Your task to perform on an android device: open device folders in google photos Image 0: 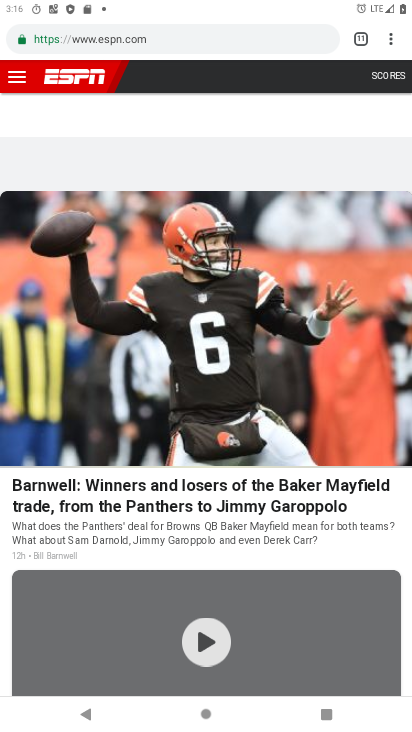
Step 0: press home button
Your task to perform on an android device: open device folders in google photos Image 1: 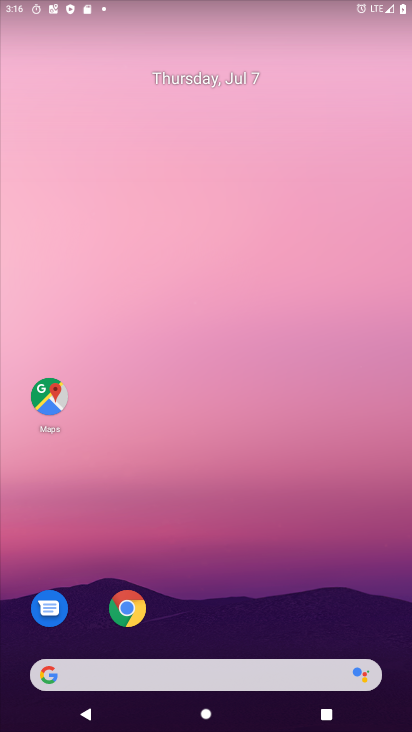
Step 1: drag from (240, 719) to (233, 160)
Your task to perform on an android device: open device folders in google photos Image 2: 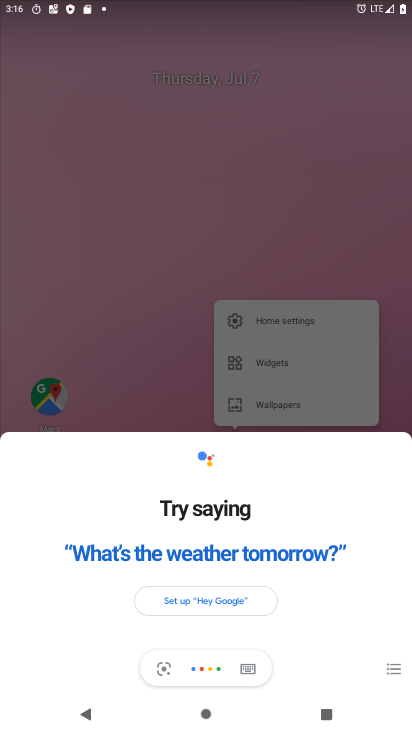
Step 2: click (164, 247)
Your task to perform on an android device: open device folders in google photos Image 3: 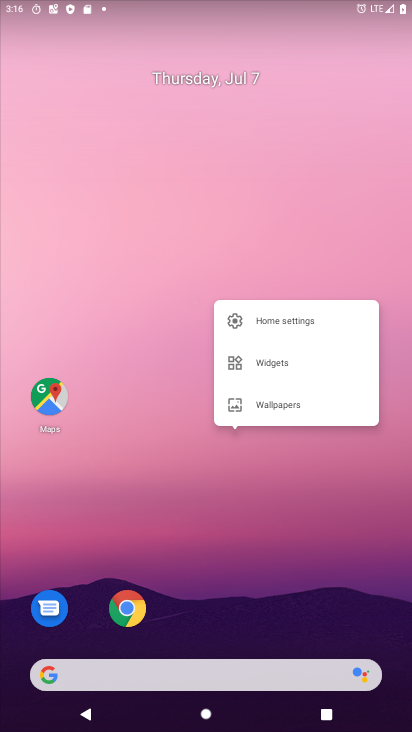
Step 3: press home button
Your task to perform on an android device: open device folders in google photos Image 4: 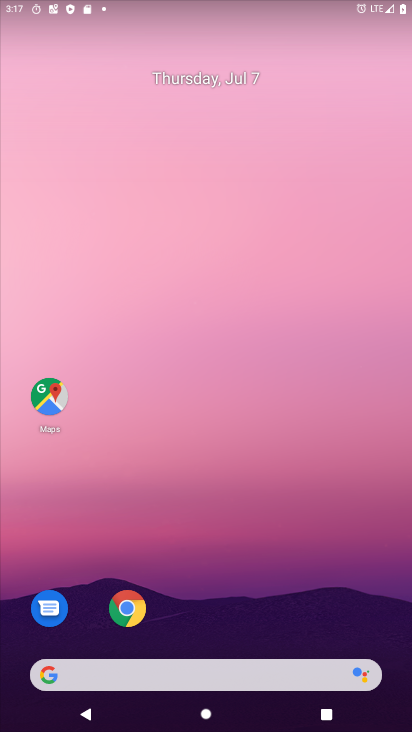
Step 4: click (259, 722)
Your task to perform on an android device: open device folders in google photos Image 5: 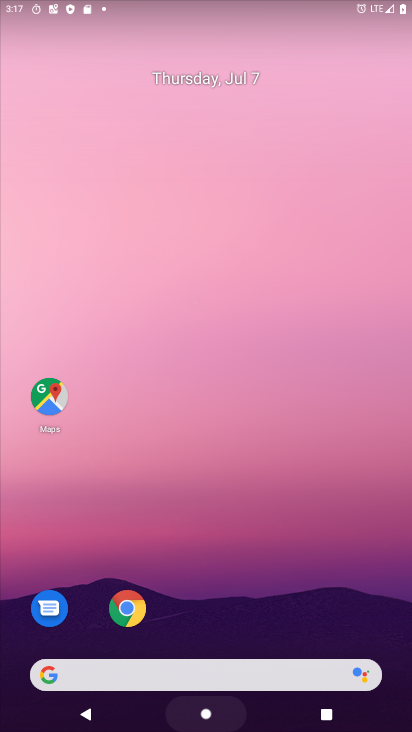
Step 5: click (235, 49)
Your task to perform on an android device: open device folders in google photos Image 6: 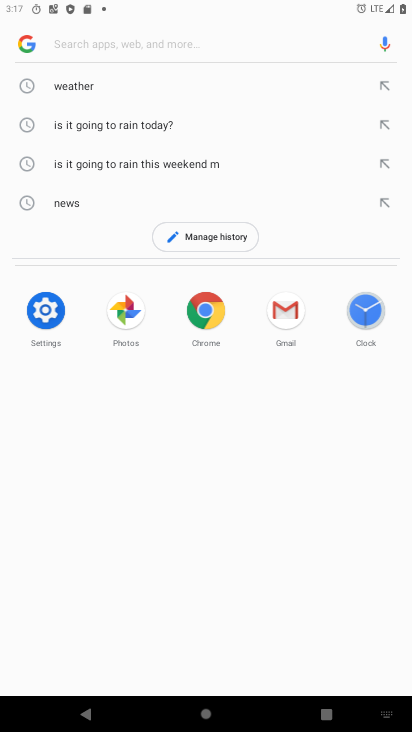
Step 6: press home button
Your task to perform on an android device: open device folders in google photos Image 7: 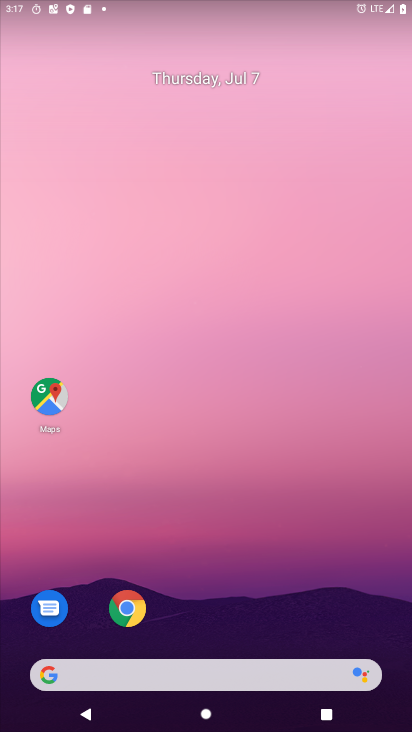
Step 7: drag from (253, 725) to (234, 51)
Your task to perform on an android device: open device folders in google photos Image 8: 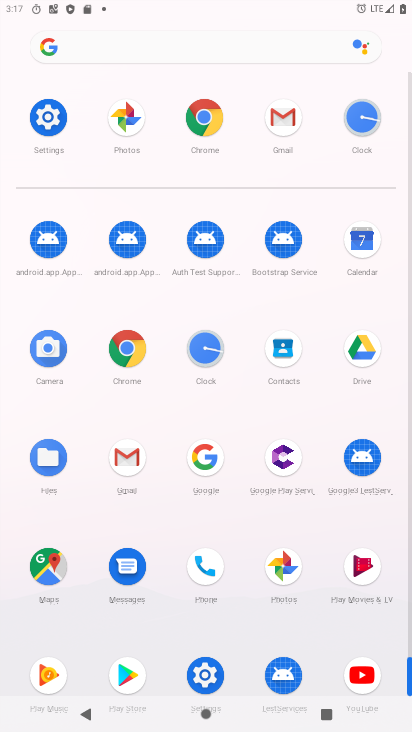
Step 8: click (282, 566)
Your task to perform on an android device: open device folders in google photos Image 9: 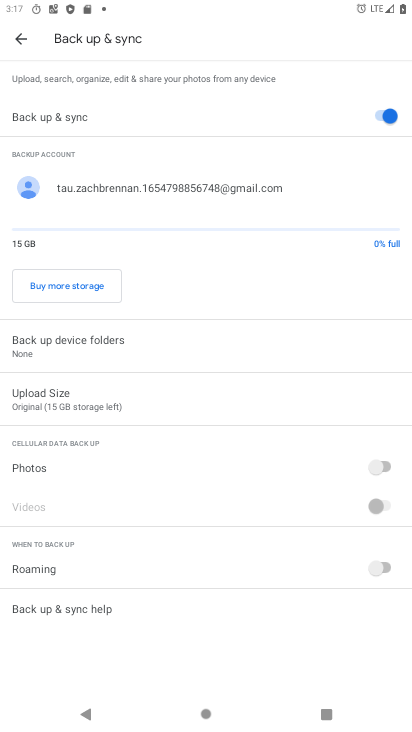
Step 9: click (16, 34)
Your task to perform on an android device: open device folders in google photos Image 10: 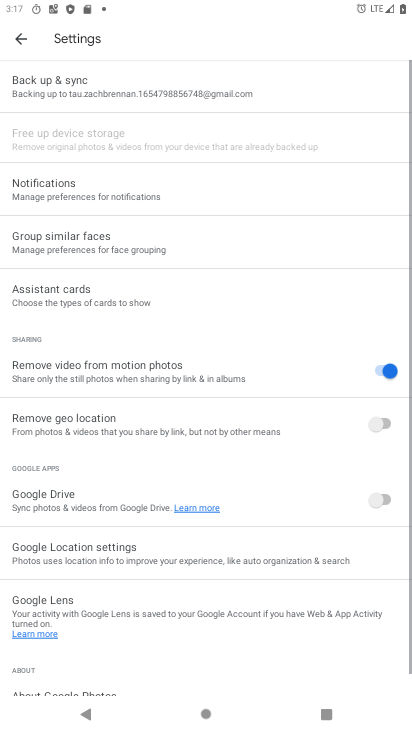
Step 10: click (16, 34)
Your task to perform on an android device: open device folders in google photos Image 11: 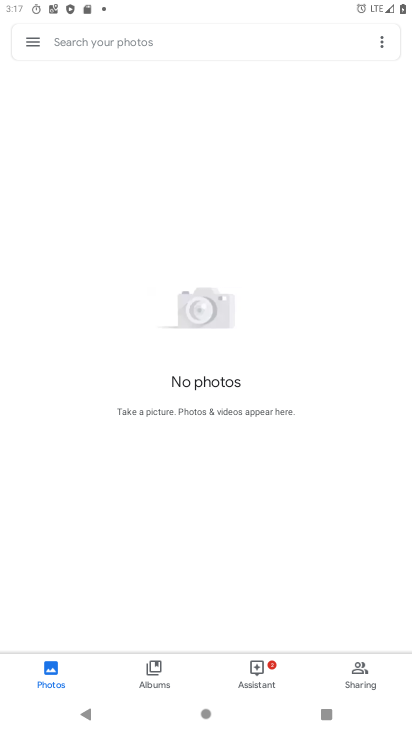
Step 11: click (32, 39)
Your task to perform on an android device: open device folders in google photos Image 12: 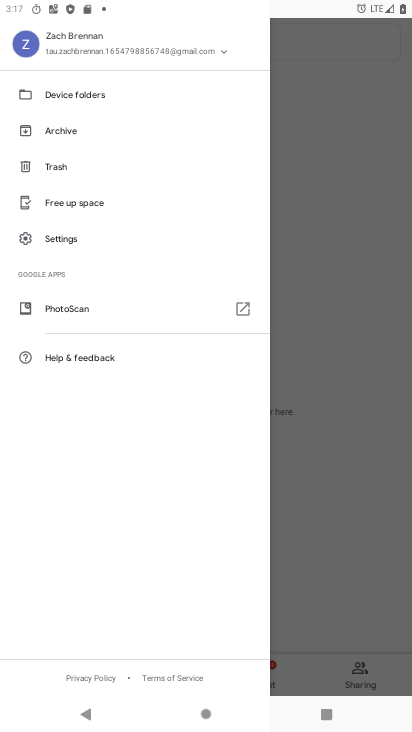
Step 12: click (78, 91)
Your task to perform on an android device: open device folders in google photos Image 13: 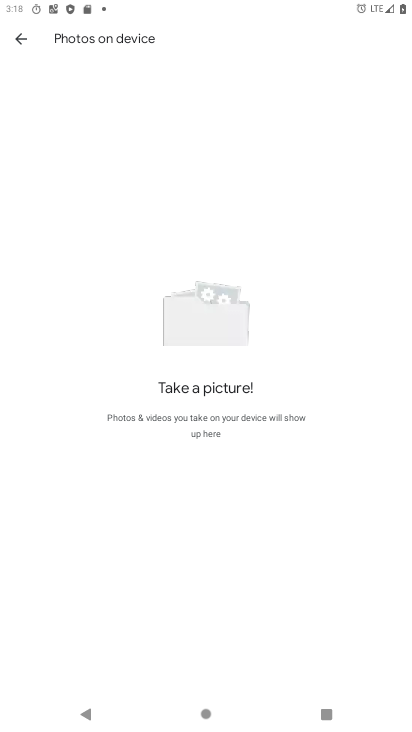
Step 13: task complete